Your task to perform on an android device: Look up the best rated pressure washer on Home Depot. Image 0: 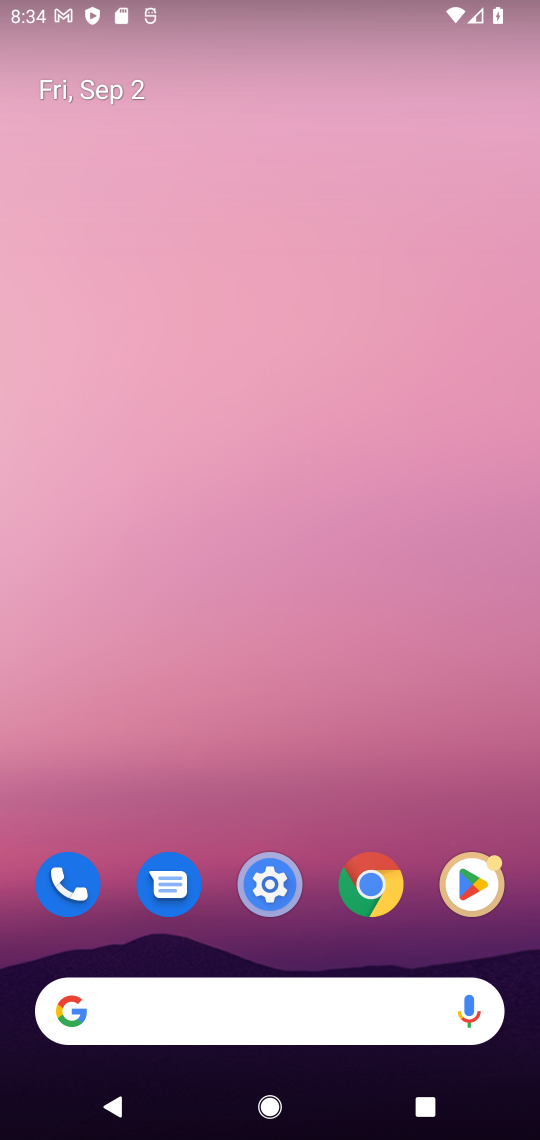
Step 0: click (377, 885)
Your task to perform on an android device: Look up the best rated pressure washer on Home Depot. Image 1: 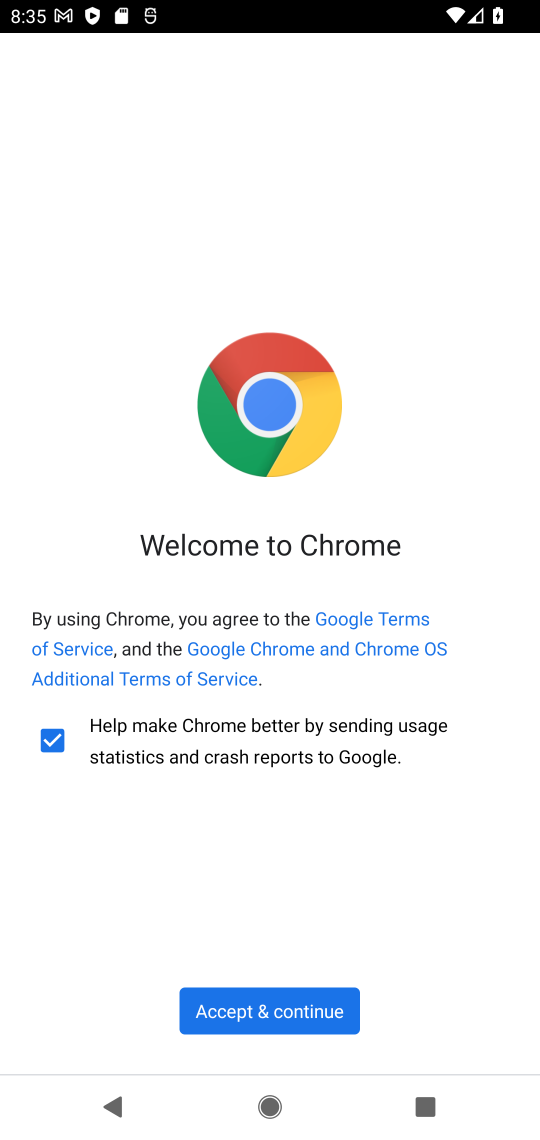
Step 1: click (280, 998)
Your task to perform on an android device: Look up the best rated pressure washer on Home Depot. Image 2: 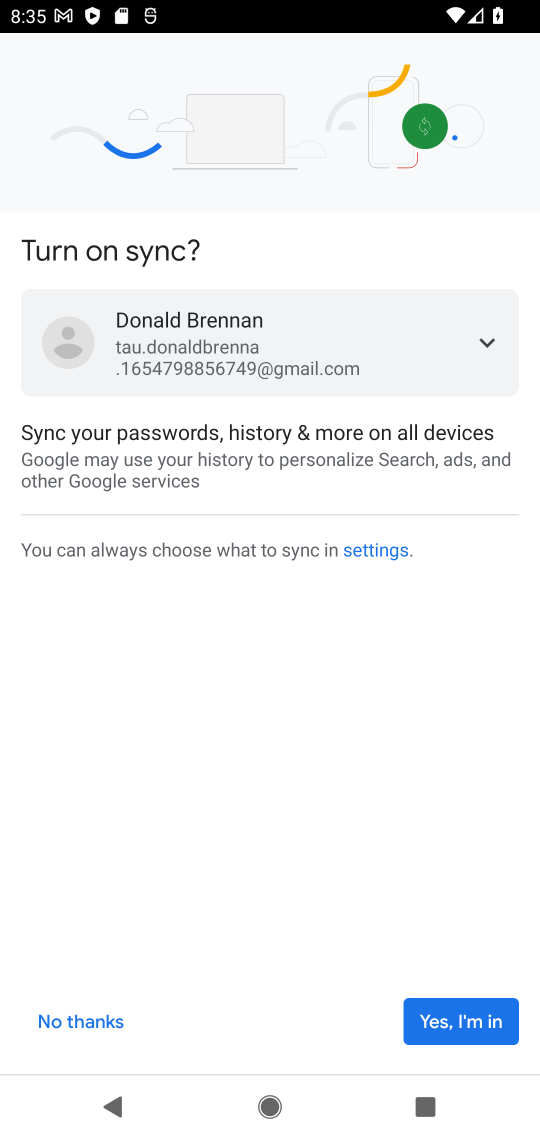
Step 2: click (92, 1026)
Your task to perform on an android device: Look up the best rated pressure washer on Home Depot. Image 3: 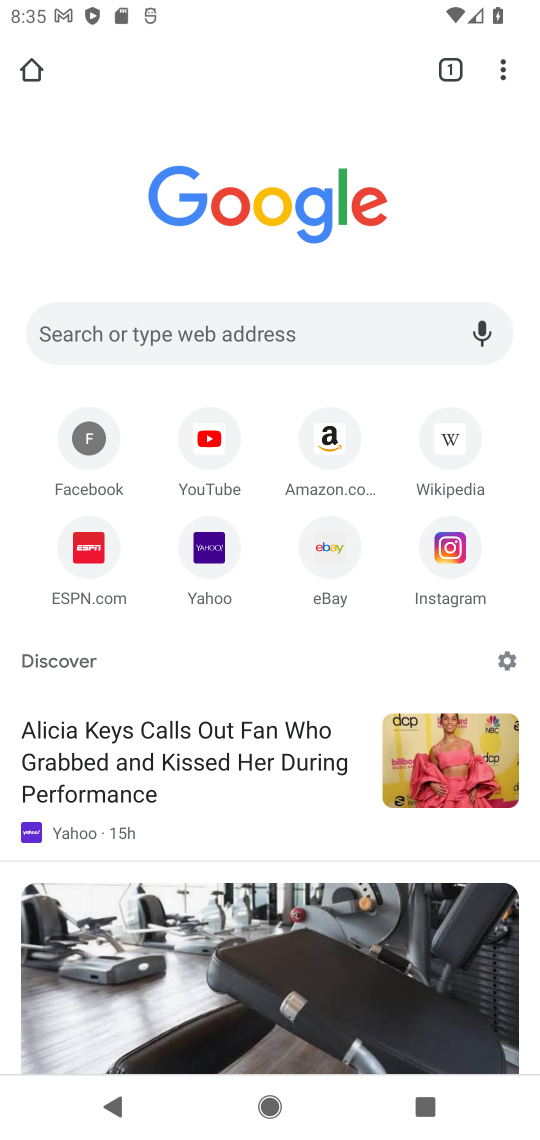
Step 3: click (181, 327)
Your task to perform on an android device: Look up the best rated pressure washer on Home Depot. Image 4: 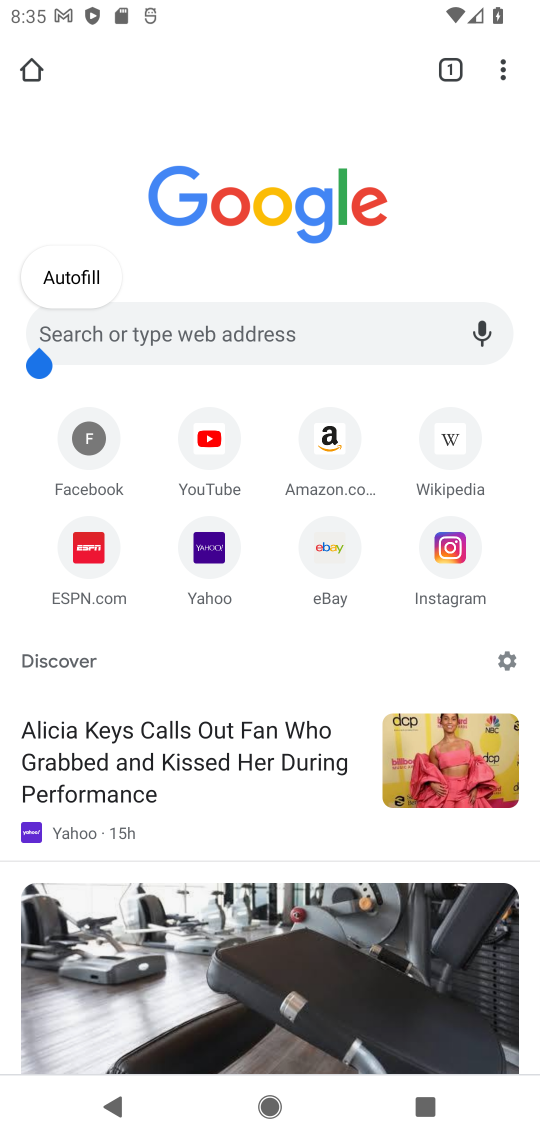
Step 4: click (130, 334)
Your task to perform on an android device: Look up the best rated pressure washer on Home Depot. Image 5: 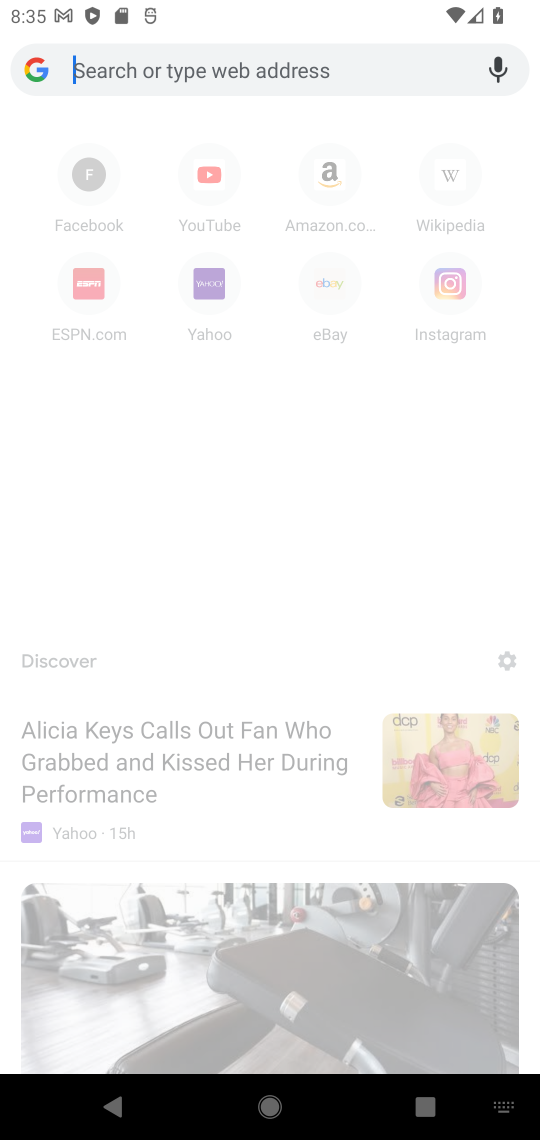
Step 5: type "home depot"
Your task to perform on an android device: Look up the best rated pressure washer on Home Depot. Image 6: 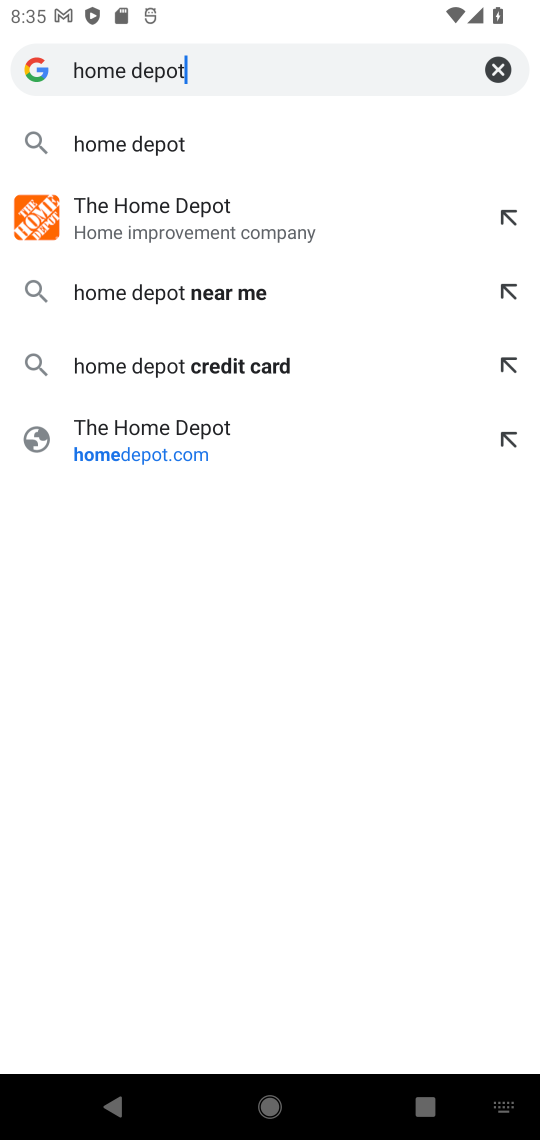
Step 6: click (145, 230)
Your task to perform on an android device: Look up the best rated pressure washer on Home Depot. Image 7: 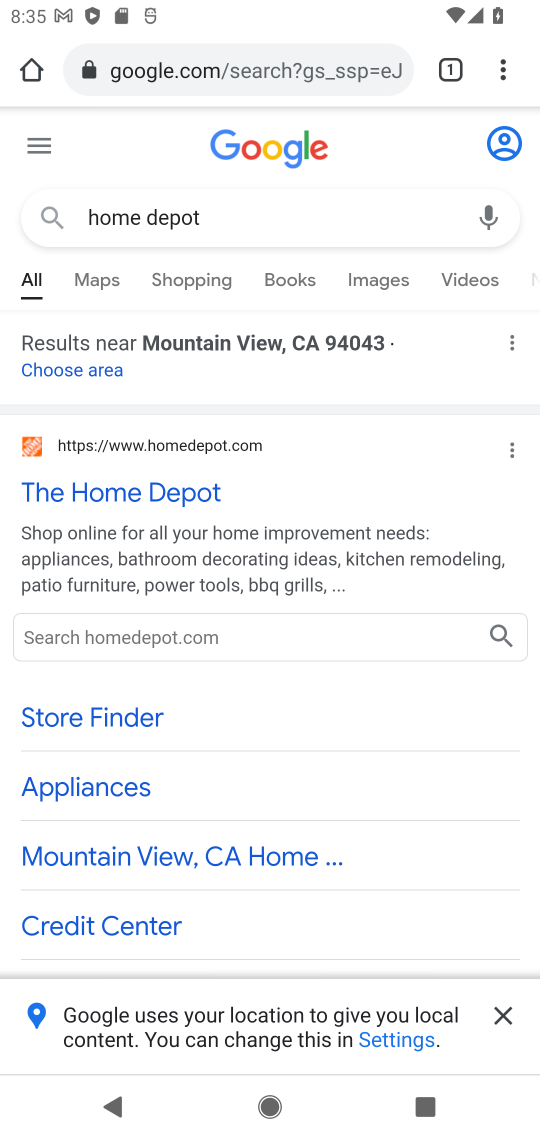
Step 7: click (111, 482)
Your task to perform on an android device: Look up the best rated pressure washer on Home Depot. Image 8: 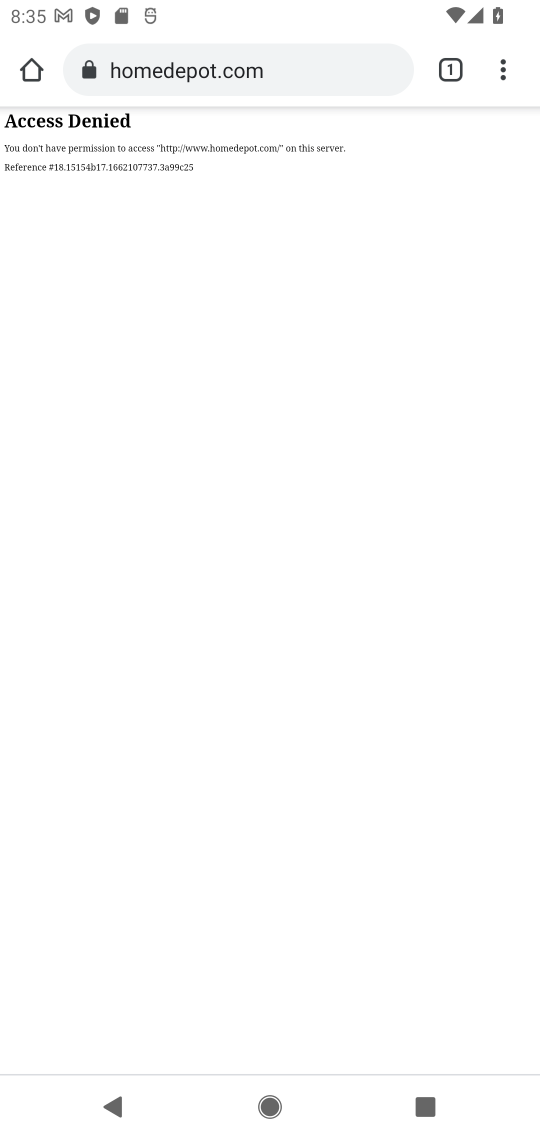
Step 8: task complete